Your task to perform on an android device: clear history in the chrome app Image 0: 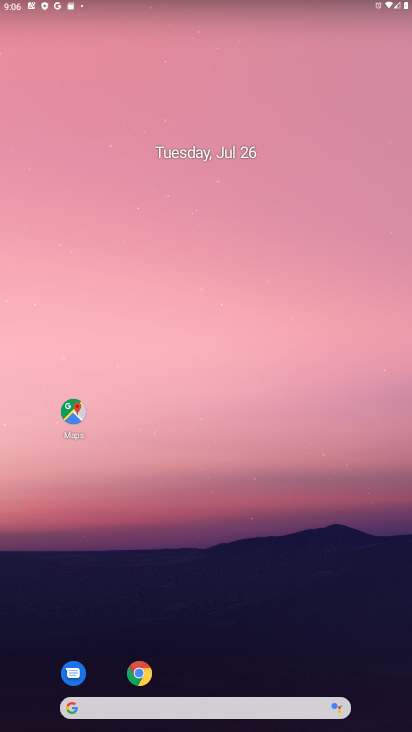
Step 0: drag from (173, 464) to (165, 404)
Your task to perform on an android device: clear history in the chrome app Image 1: 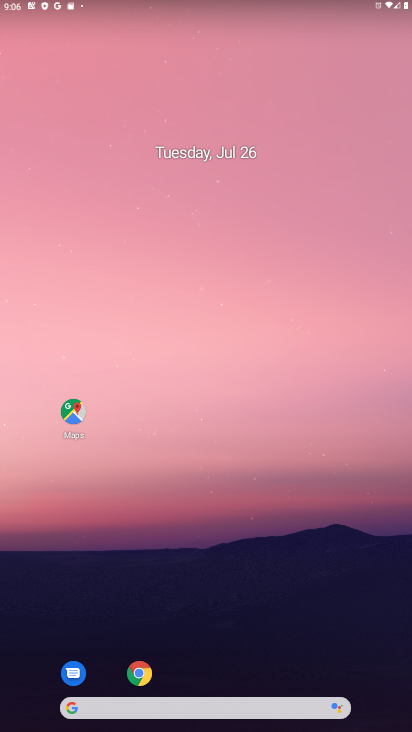
Step 1: drag from (181, 283) to (181, 247)
Your task to perform on an android device: clear history in the chrome app Image 2: 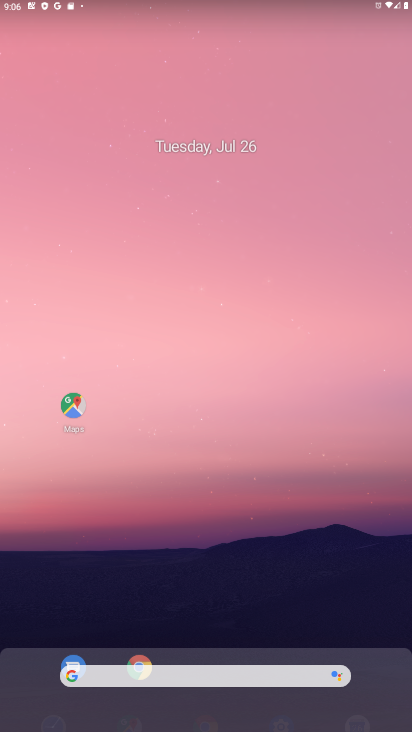
Step 2: drag from (269, 283) to (269, 249)
Your task to perform on an android device: clear history in the chrome app Image 3: 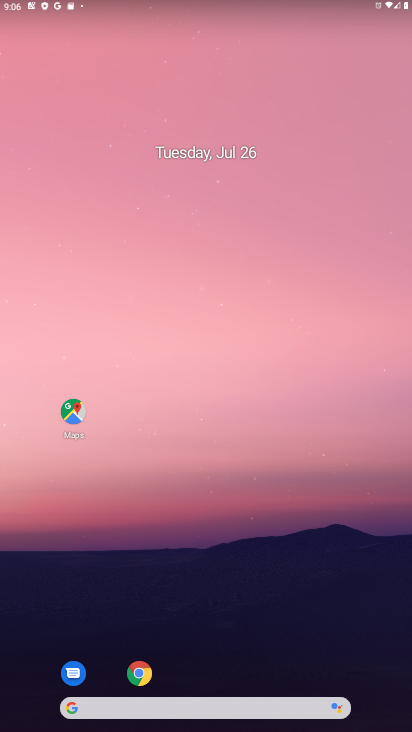
Step 3: drag from (278, 428) to (278, 235)
Your task to perform on an android device: clear history in the chrome app Image 4: 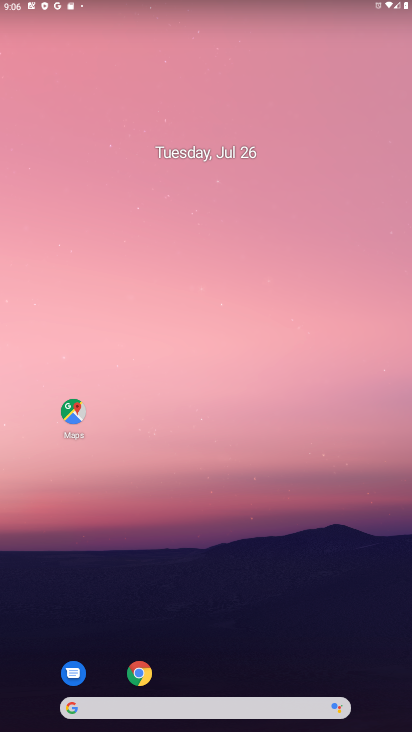
Step 4: click (272, 114)
Your task to perform on an android device: clear history in the chrome app Image 5: 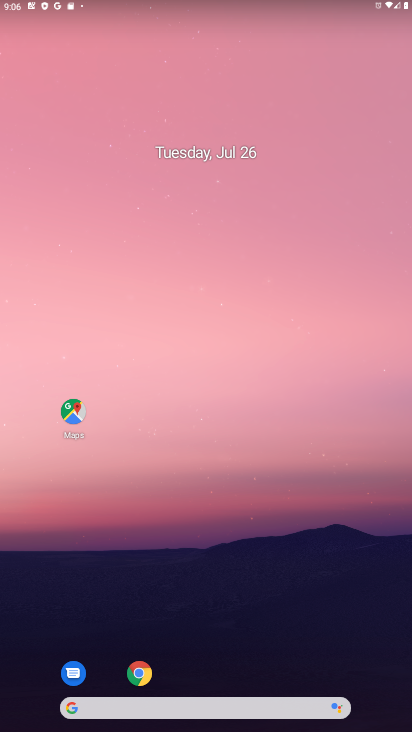
Step 5: click (291, 51)
Your task to perform on an android device: clear history in the chrome app Image 6: 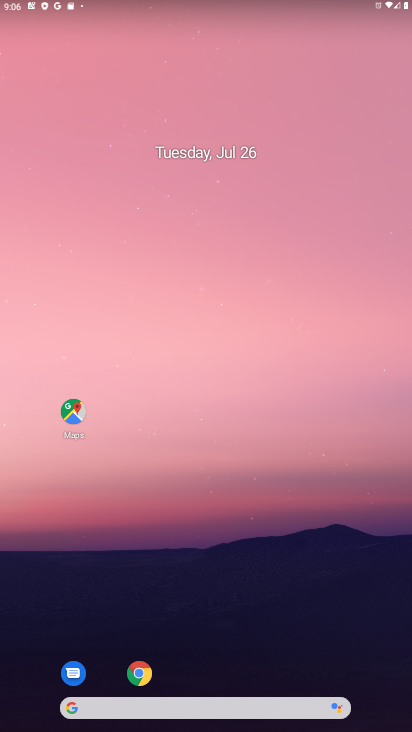
Step 6: drag from (275, 280) to (237, 18)
Your task to perform on an android device: clear history in the chrome app Image 7: 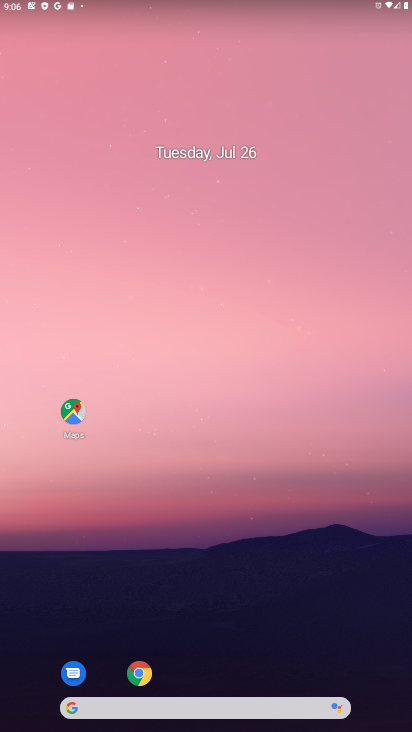
Step 7: drag from (149, 598) to (144, 119)
Your task to perform on an android device: clear history in the chrome app Image 8: 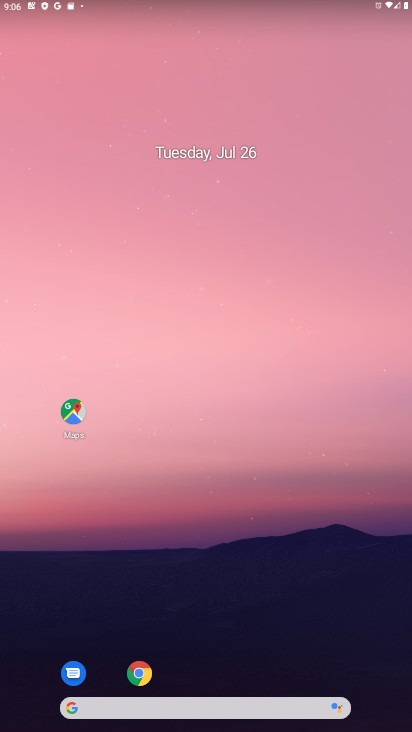
Step 8: drag from (270, 536) to (237, 123)
Your task to perform on an android device: clear history in the chrome app Image 9: 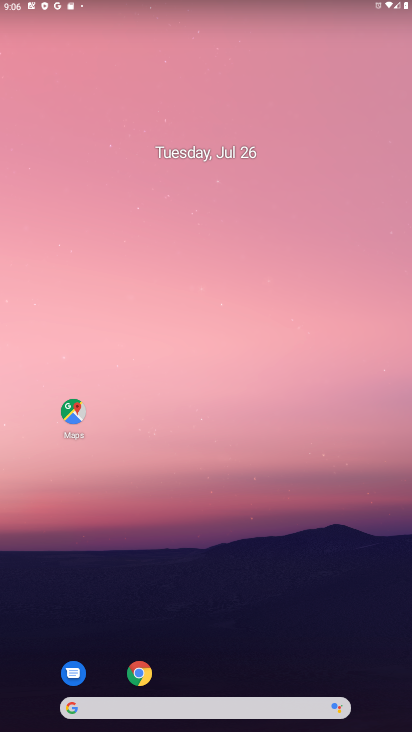
Step 9: drag from (257, 518) to (202, 64)
Your task to perform on an android device: clear history in the chrome app Image 10: 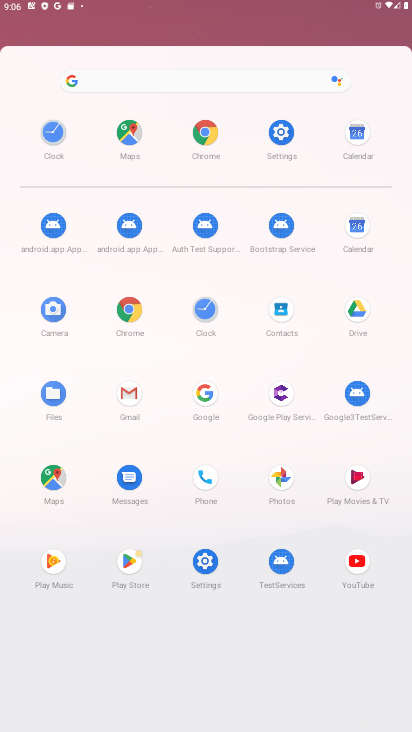
Step 10: drag from (291, 544) to (267, 54)
Your task to perform on an android device: clear history in the chrome app Image 11: 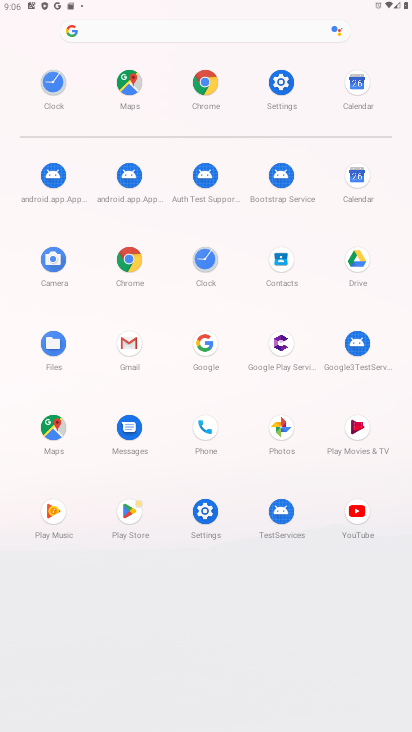
Step 11: drag from (238, 516) to (212, 143)
Your task to perform on an android device: clear history in the chrome app Image 12: 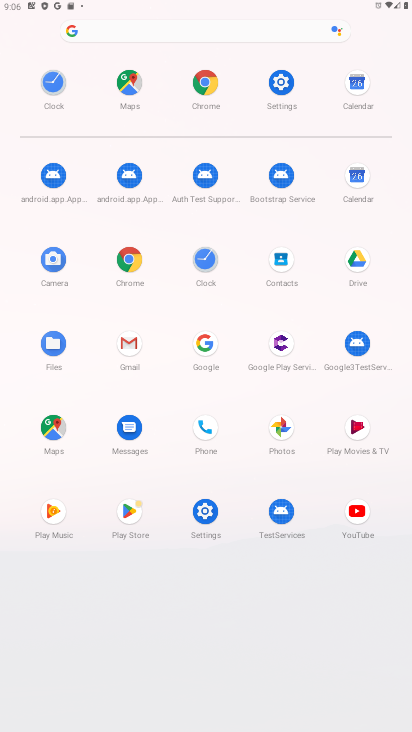
Step 12: click (205, 85)
Your task to perform on an android device: clear history in the chrome app Image 13: 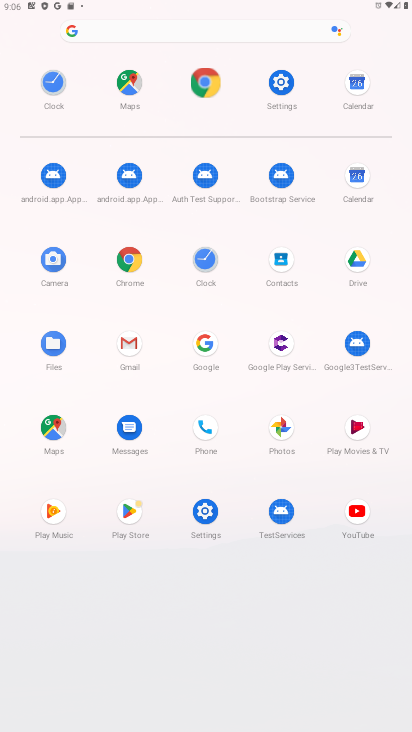
Step 13: click (205, 85)
Your task to perform on an android device: clear history in the chrome app Image 14: 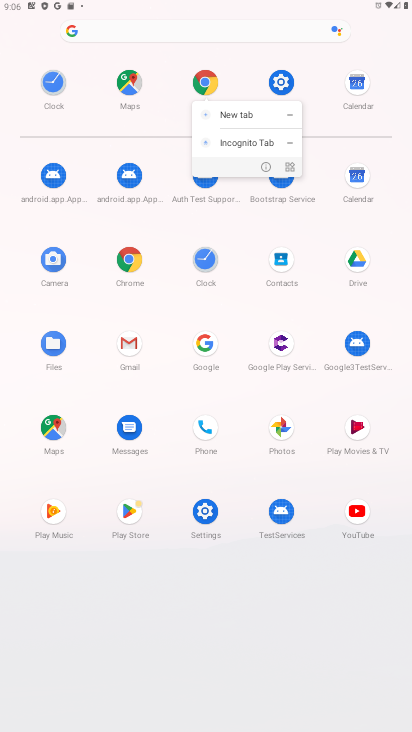
Step 14: click (206, 89)
Your task to perform on an android device: clear history in the chrome app Image 15: 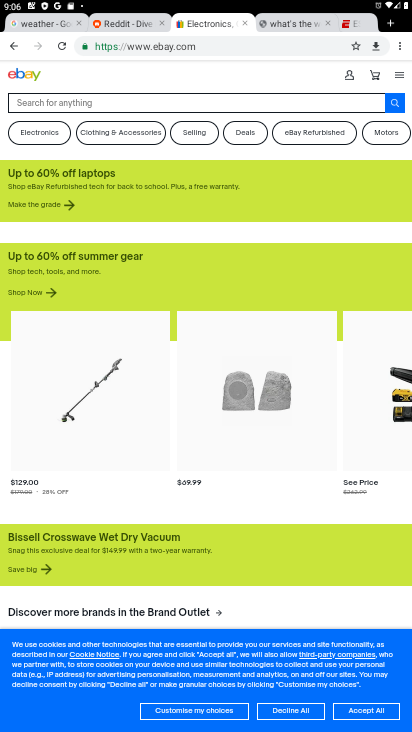
Step 15: drag from (403, 49) to (312, 138)
Your task to perform on an android device: clear history in the chrome app Image 16: 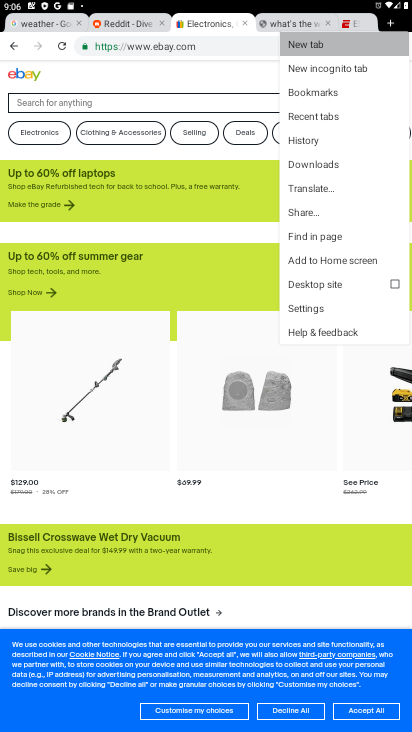
Step 16: click (312, 138)
Your task to perform on an android device: clear history in the chrome app Image 17: 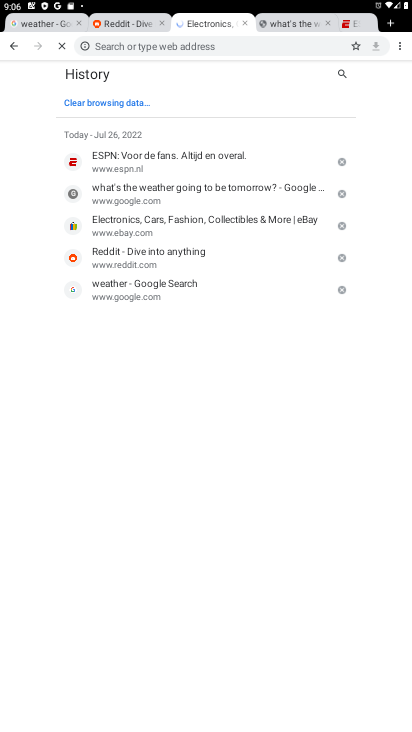
Step 17: click (312, 138)
Your task to perform on an android device: clear history in the chrome app Image 18: 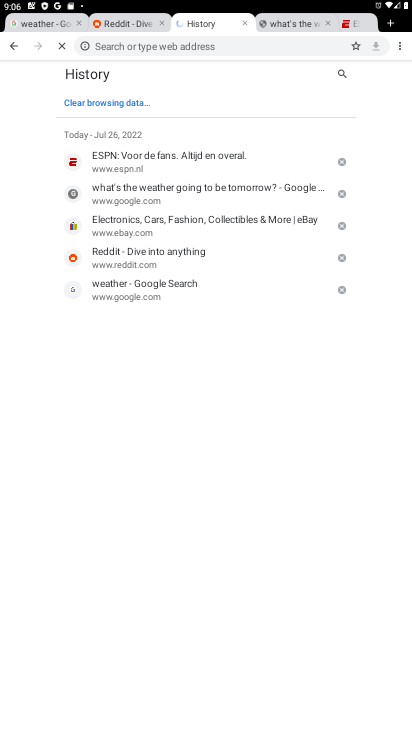
Step 18: click (312, 139)
Your task to perform on an android device: clear history in the chrome app Image 19: 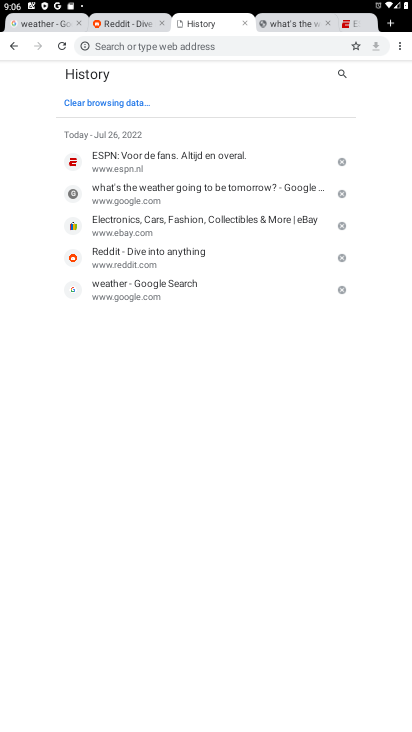
Step 19: click (104, 96)
Your task to perform on an android device: clear history in the chrome app Image 20: 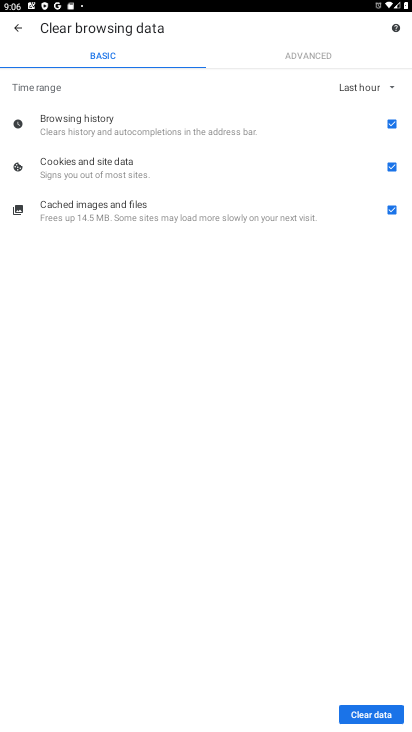
Step 20: click (374, 724)
Your task to perform on an android device: clear history in the chrome app Image 21: 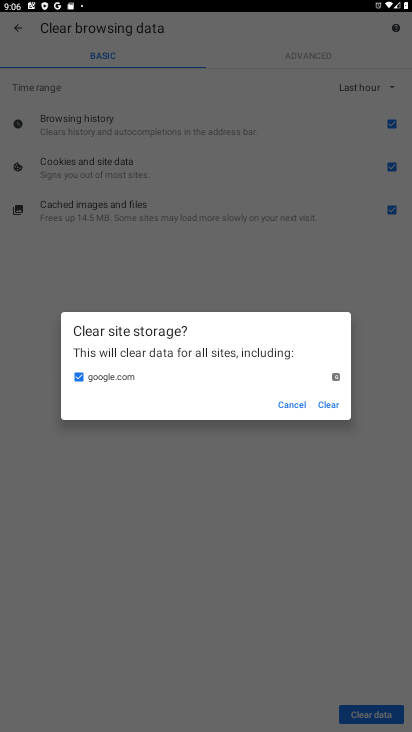
Step 21: task complete